Your task to perform on an android device: read, delete, or share a saved page in the chrome app Image 0: 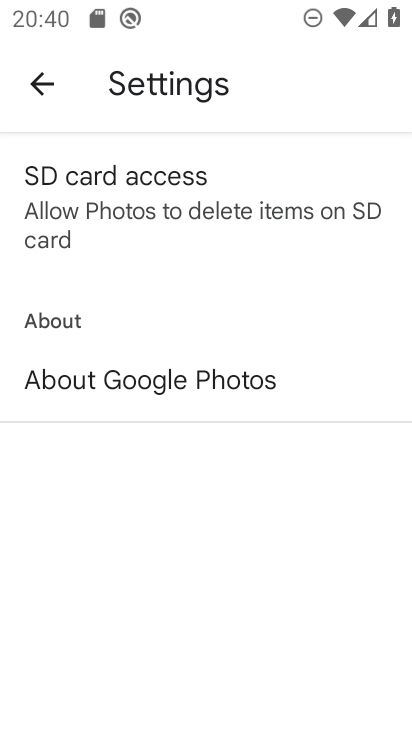
Step 0: press home button
Your task to perform on an android device: read, delete, or share a saved page in the chrome app Image 1: 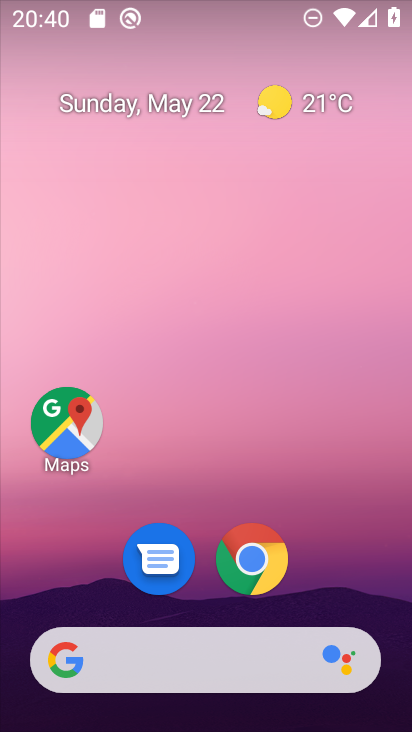
Step 1: drag from (275, 701) to (212, 223)
Your task to perform on an android device: read, delete, or share a saved page in the chrome app Image 2: 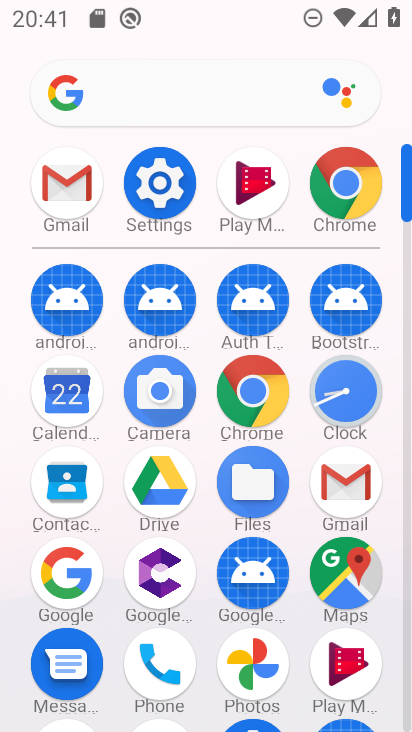
Step 2: click (341, 176)
Your task to perform on an android device: read, delete, or share a saved page in the chrome app Image 3: 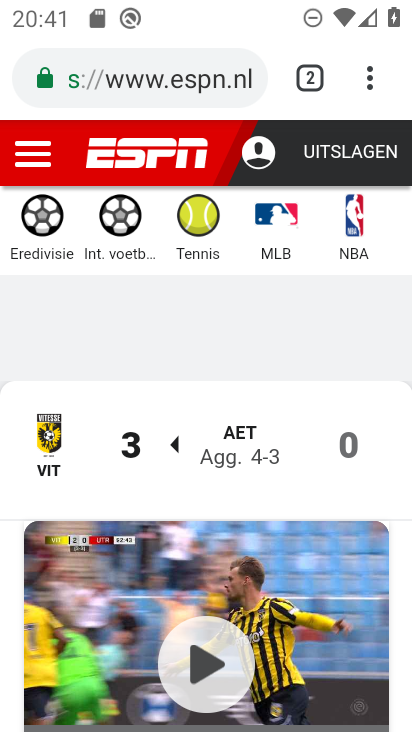
Step 3: click (361, 78)
Your task to perform on an android device: read, delete, or share a saved page in the chrome app Image 4: 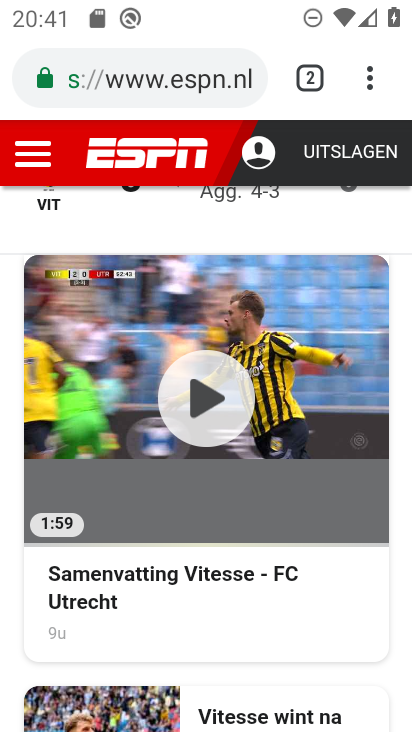
Step 4: click (369, 87)
Your task to perform on an android device: read, delete, or share a saved page in the chrome app Image 5: 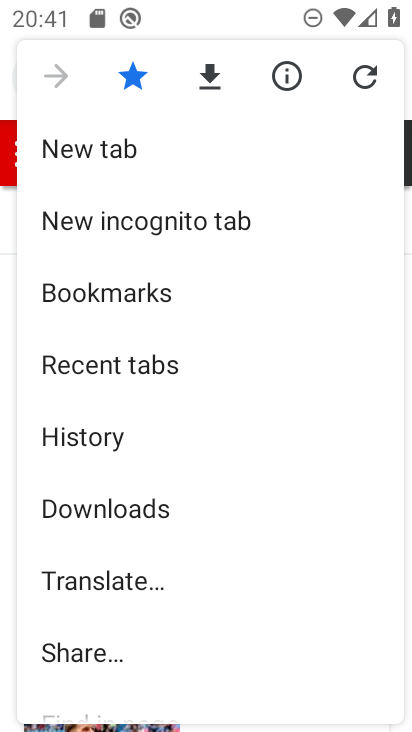
Step 5: click (93, 637)
Your task to perform on an android device: read, delete, or share a saved page in the chrome app Image 6: 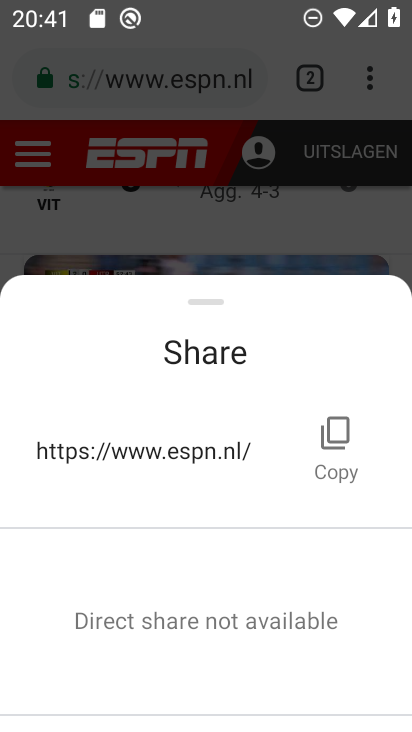
Step 6: task complete